Your task to perform on an android device: move an email to a new category in the gmail app Image 0: 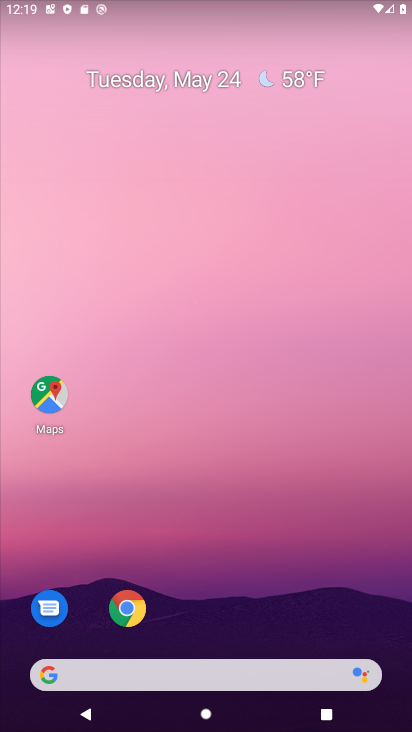
Step 0: press home button
Your task to perform on an android device: move an email to a new category in the gmail app Image 1: 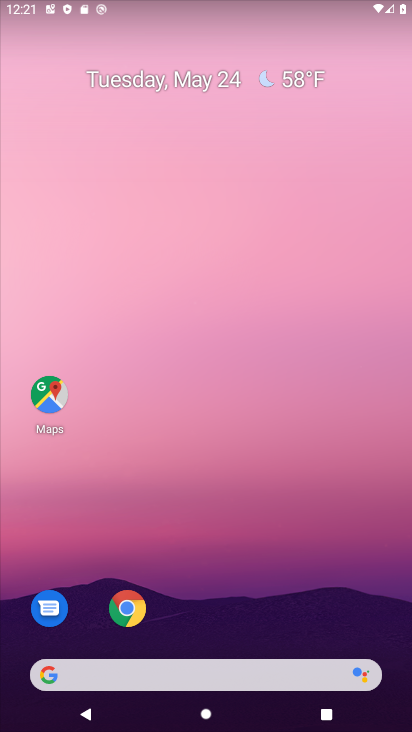
Step 1: drag from (294, 683) to (278, 108)
Your task to perform on an android device: move an email to a new category in the gmail app Image 2: 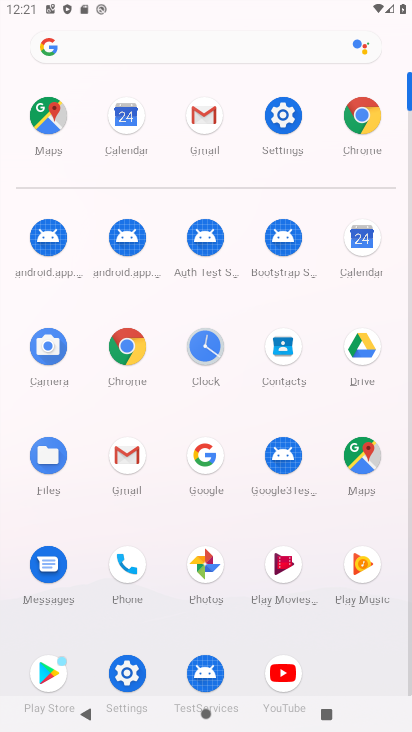
Step 2: click (209, 123)
Your task to perform on an android device: move an email to a new category in the gmail app Image 3: 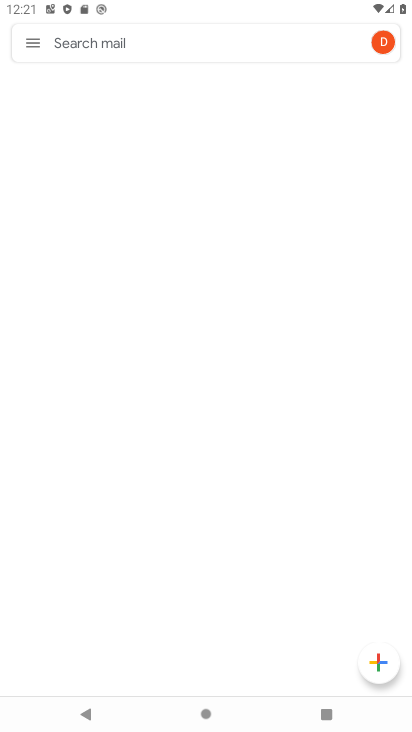
Step 3: click (36, 51)
Your task to perform on an android device: move an email to a new category in the gmail app Image 4: 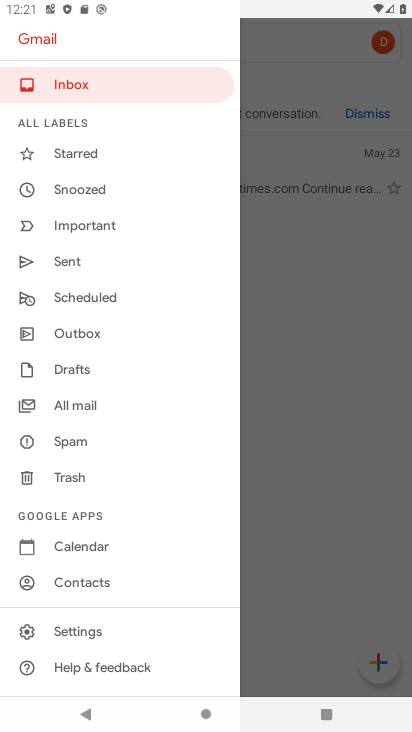
Step 4: click (87, 623)
Your task to perform on an android device: move an email to a new category in the gmail app Image 5: 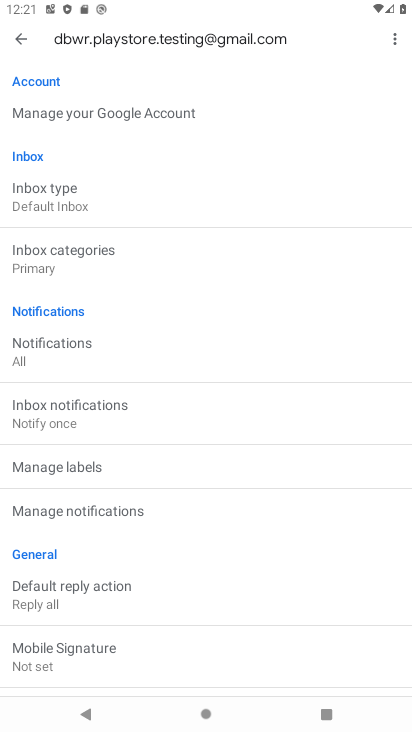
Step 5: click (69, 256)
Your task to perform on an android device: move an email to a new category in the gmail app Image 6: 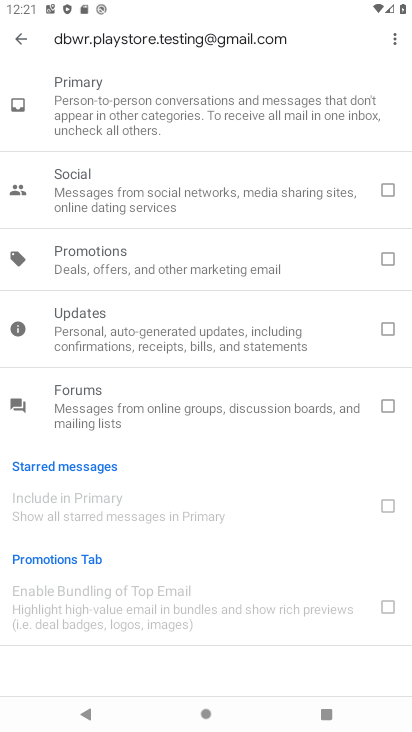
Step 6: click (388, 267)
Your task to perform on an android device: move an email to a new category in the gmail app Image 7: 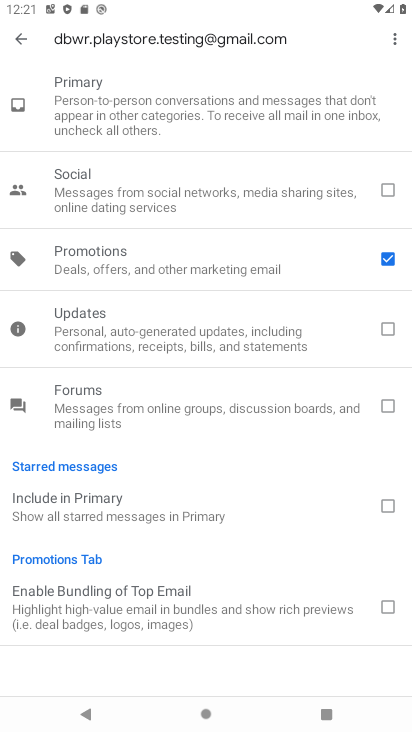
Step 7: task complete